Your task to perform on an android device: open wifi settings Image 0: 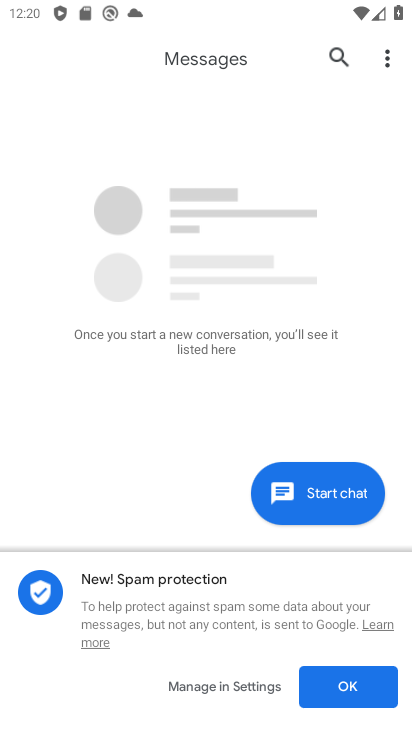
Step 0: press home button
Your task to perform on an android device: open wifi settings Image 1: 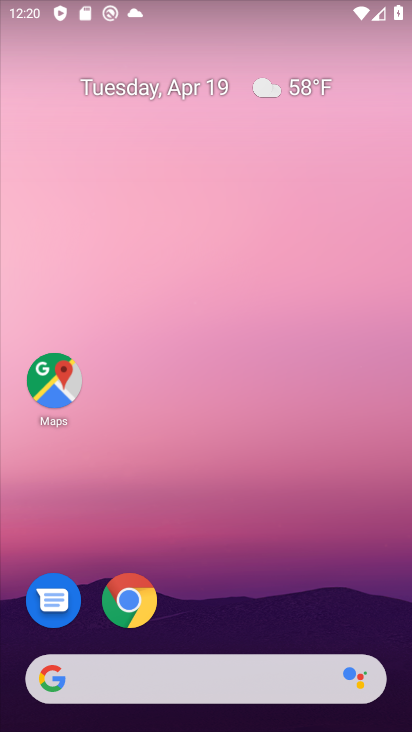
Step 1: drag from (313, 648) to (309, 6)
Your task to perform on an android device: open wifi settings Image 2: 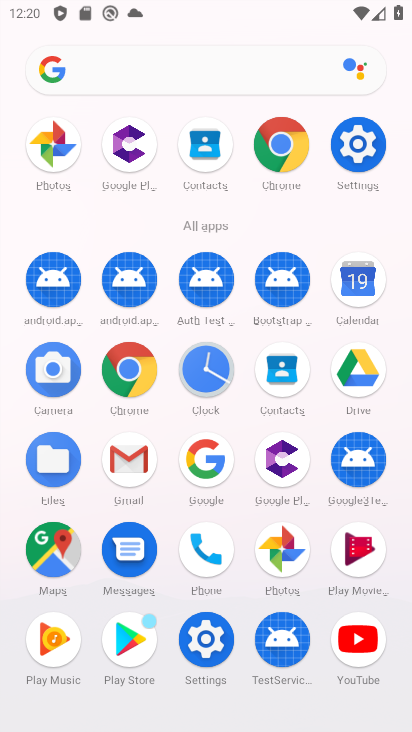
Step 2: click (358, 143)
Your task to perform on an android device: open wifi settings Image 3: 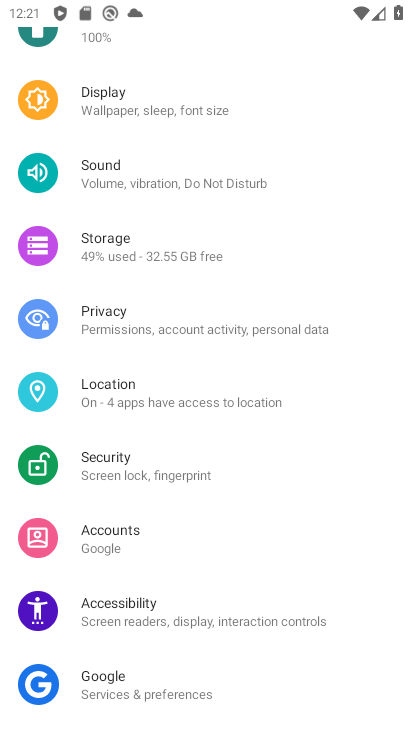
Step 3: drag from (358, 143) to (407, 369)
Your task to perform on an android device: open wifi settings Image 4: 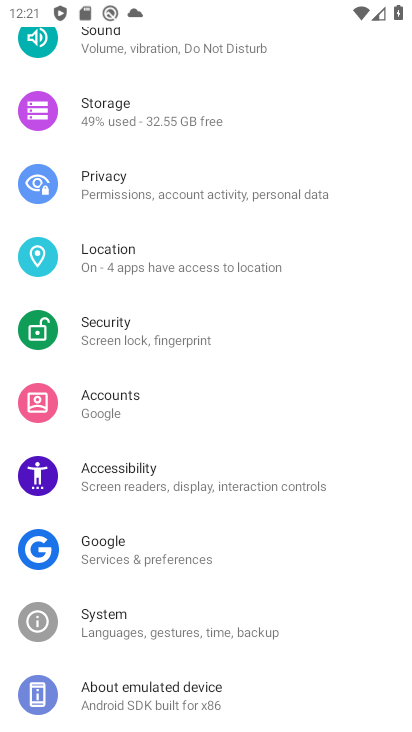
Step 4: drag from (322, 125) to (320, 731)
Your task to perform on an android device: open wifi settings Image 5: 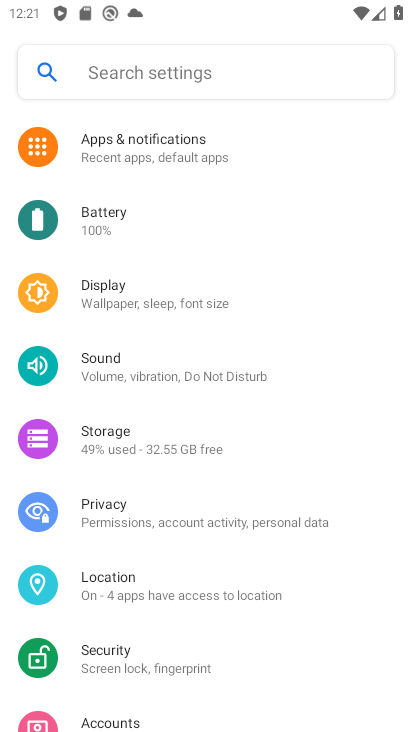
Step 5: drag from (307, 174) to (358, 528)
Your task to perform on an android device: open wifi settings Image 6: 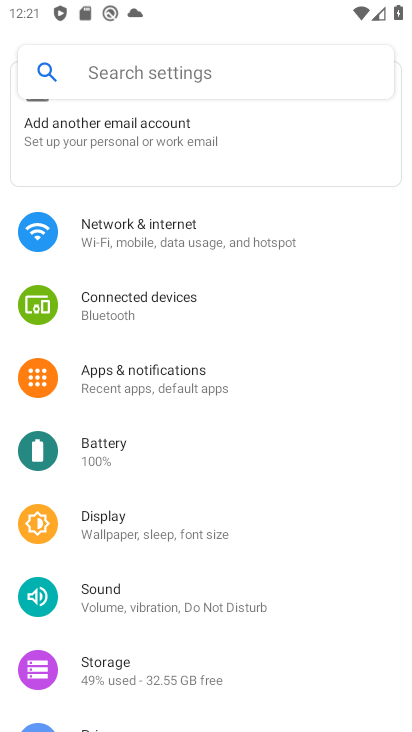
Step 6: click (334, 227)
Your task to perform on an android device: open wifi settings Image 7: 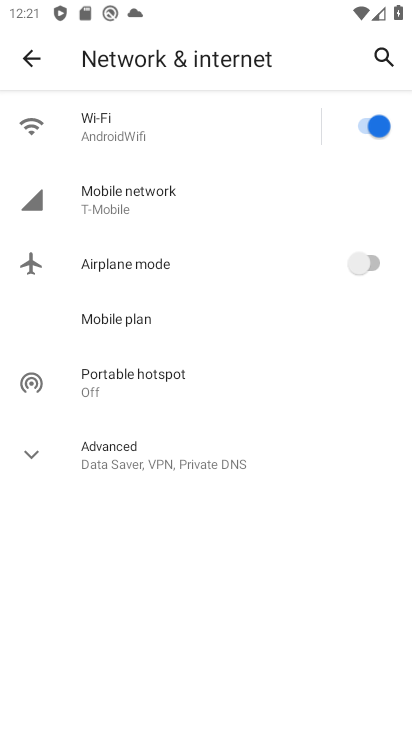
Step 7: click (141, 122)
Your task to perform on an android device: open wifi settings Image 8: 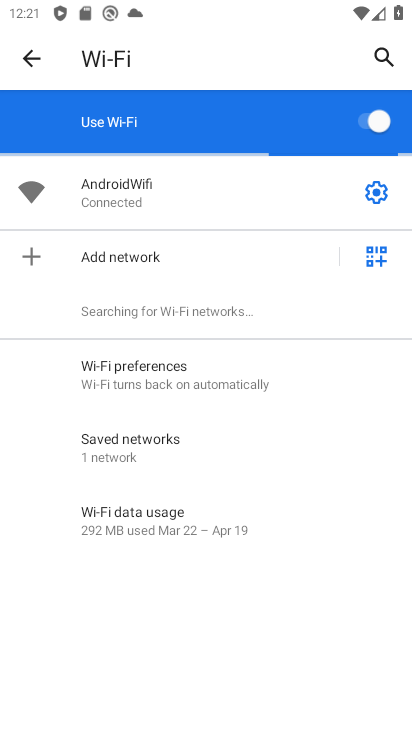
Step 8: task complete